Your task to perform on an android device: turn notification dots off Image 0: 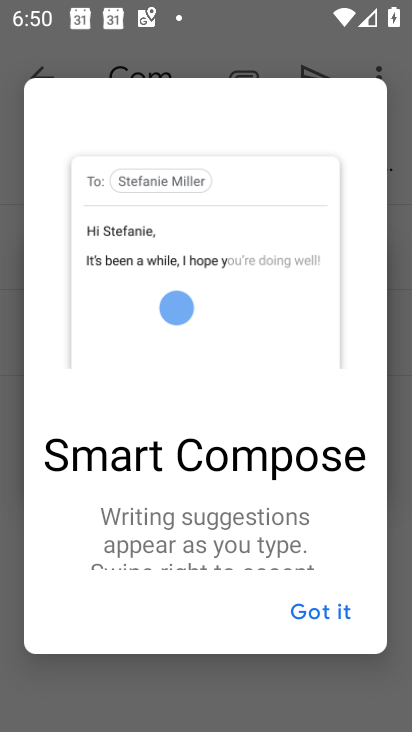
Step 0: press home button
Your task to perform on an android device: turn notification dots off Image 1: 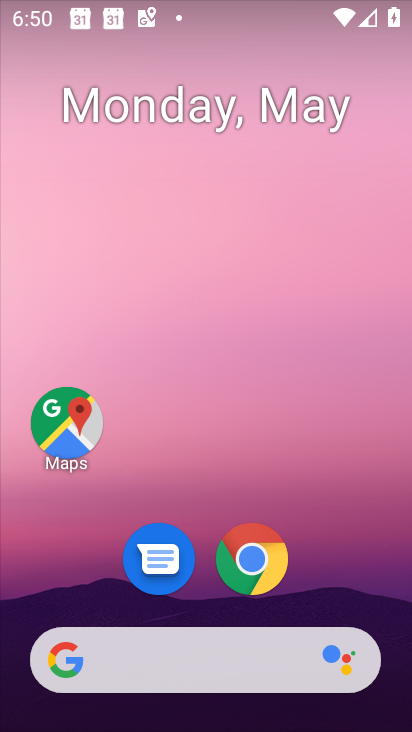
Step 1: drag from (385, 607) to (274, 53)
Your task to perform on an android device: turn notification dots off Image 2: 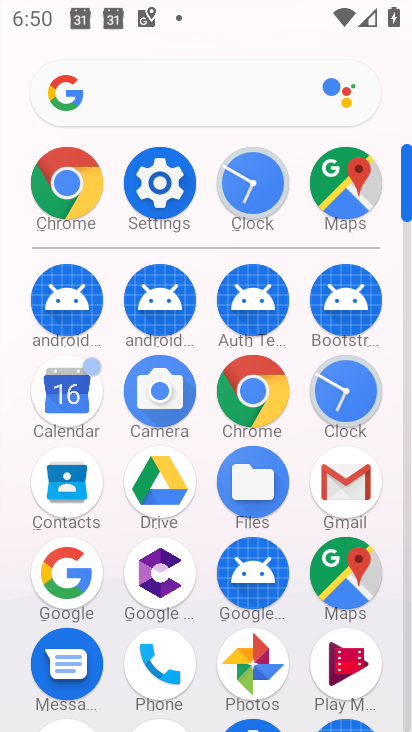
Step 2: click (152, 191)
Your task to perform on an android device: turn notification dots off Image 3: 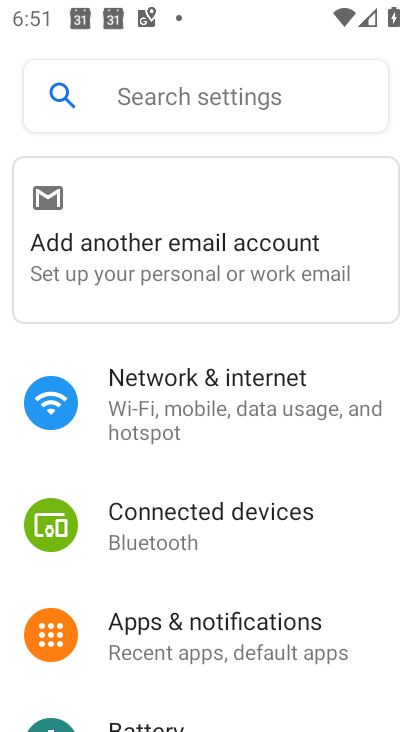
Step 3: click (286, 621)
Your task to perform on an android device: turn notification dots off Image 4: 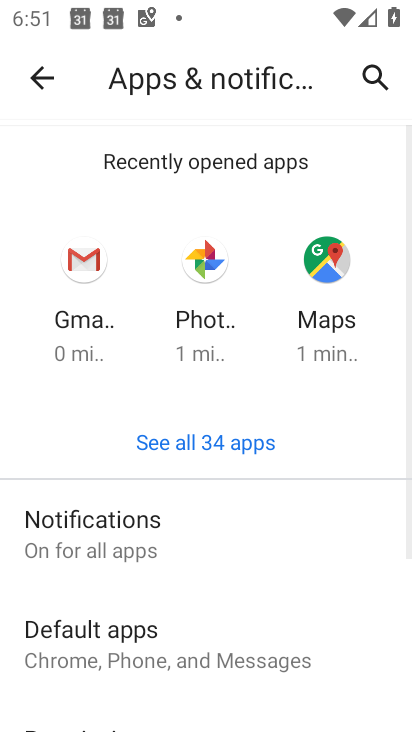
Step 4: click (170, 539)
Your task to perform on an android device: turn notification dots off Image 5: 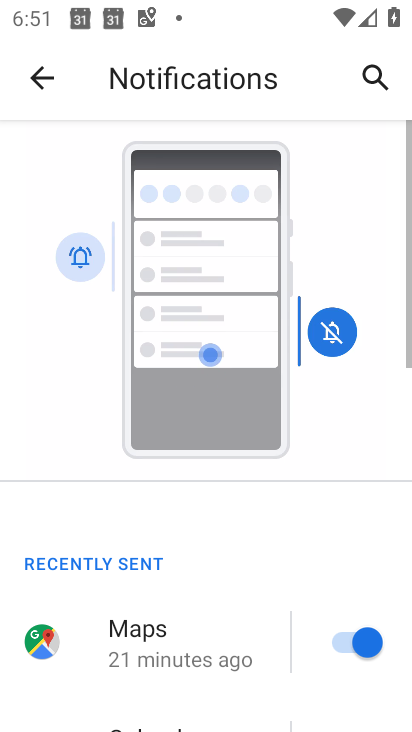
Step 5: drag from (86, 653) to (96, 30)
Your task to perform on an android device: turn notification dots off Image 6: 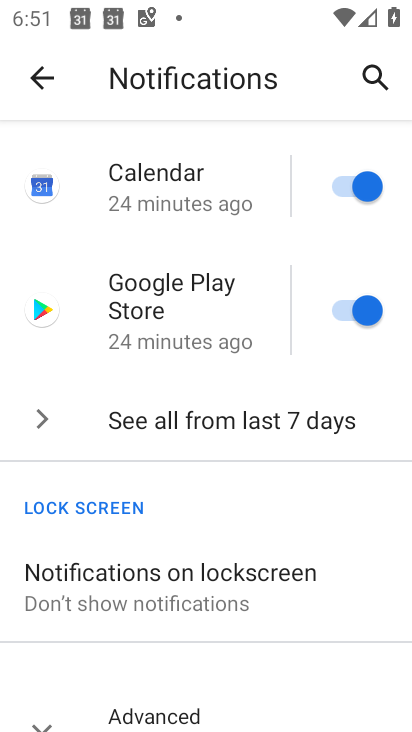
Step 6: drag from (113, 613) to (147, 195)
Your task to perform on an android device: turn notification dots off Image 7: 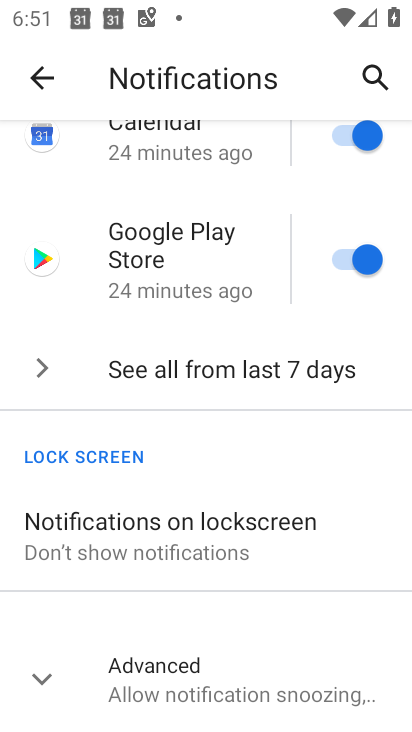
Step 7: click (38, 679)
Your task to perform on an android device: turn notification dots off Image 8: 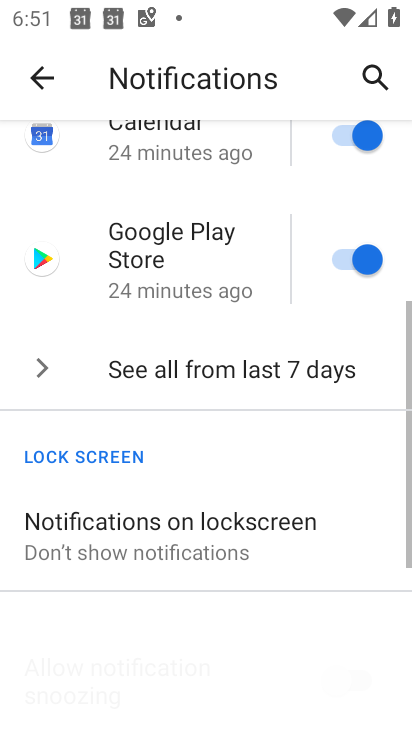
Step 8: drag from (142, 686) to (166, 208)
Your task to perform on an android device: turn notification dots off Image 9: 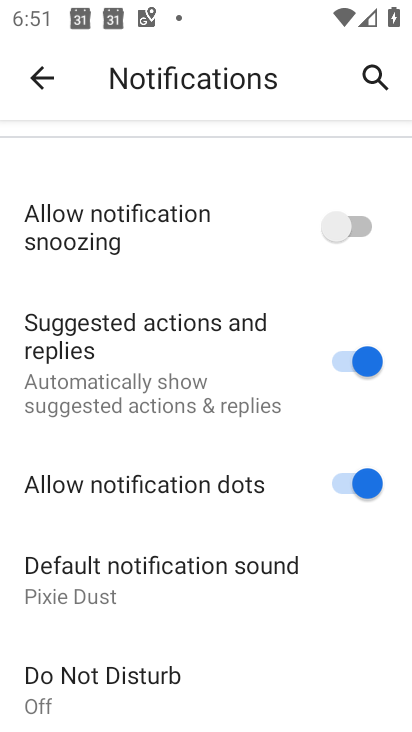
Step 9: click (239, 508)
Your task to perform on an android device: turn notification dots off Image 10: 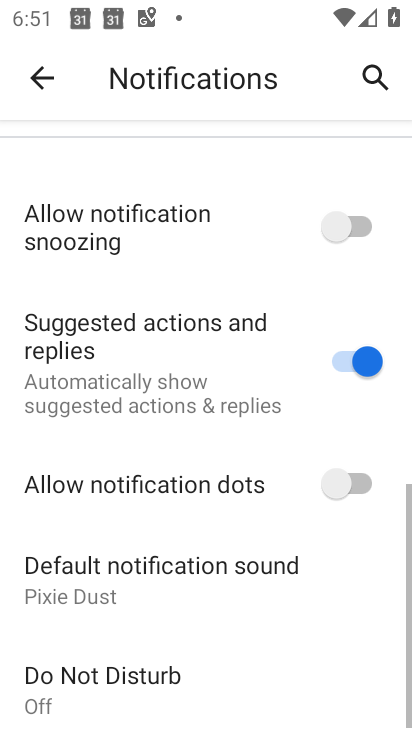
Step 10: task complete